Your task to perform on an android device: Show me the alarms in the clock app Image 0: 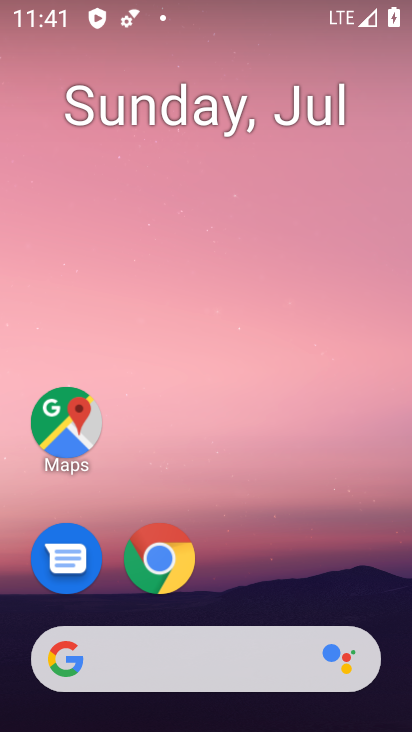
Step 0: drag from (228, 606) to (264, 35)
Your task to perform on an android device: Show me the alarms in the clock app Image 1: 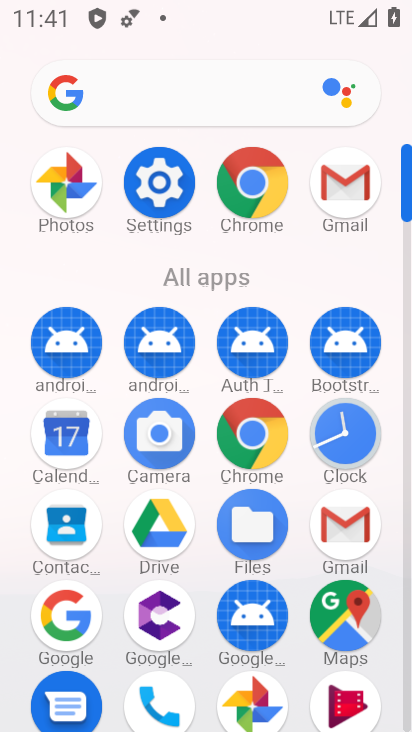
Step 1: click (331, 441)
Your task to perform on an android device: Show me the alarms in the clock app Image 2: 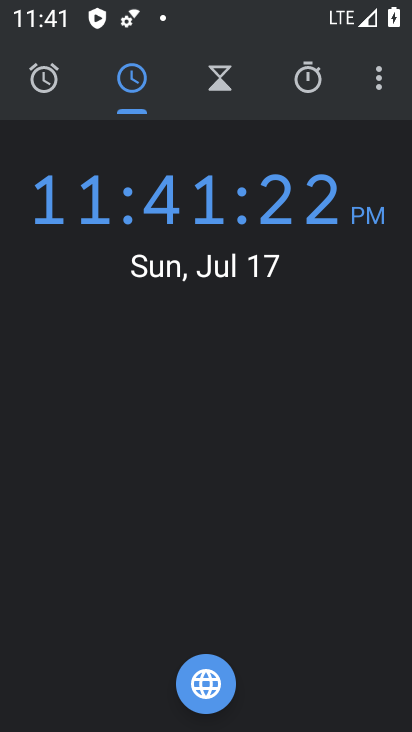
Step 2: click (44, 81)
Your task to perform on an android device: Show me the alarms in the clock app Image 3: 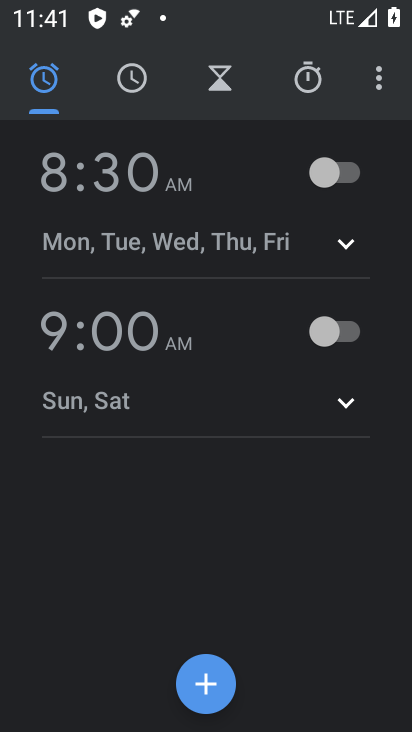
Step 3: click (341, 176)
Your task to perform on an android device: Show me the alarms in the clock app Image 4: 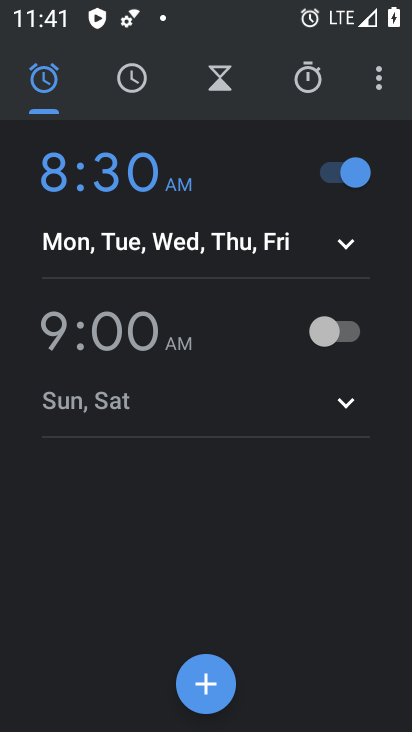
Step 4: task complete